Your task to perform on an android device: Go to accessibility settings Image 0: 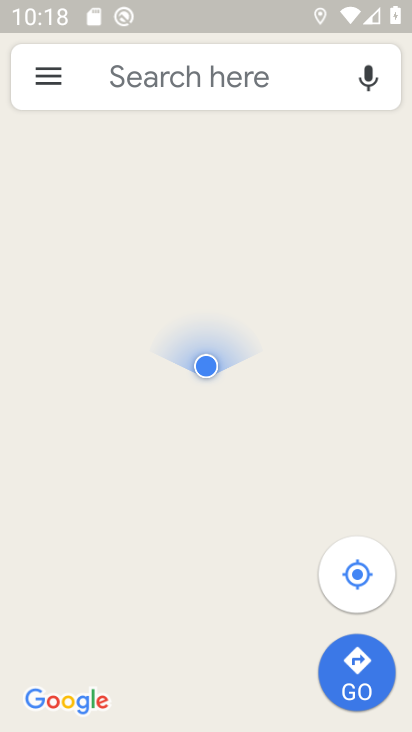
Step 0: press home button
Your task to perform on an android device: Go to accessibility settings Image 1: 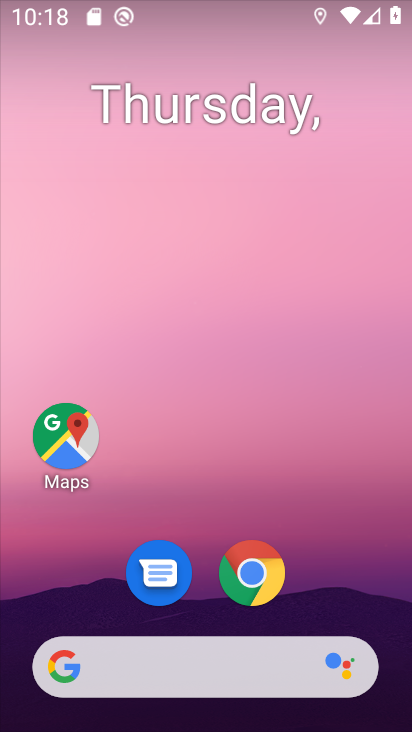
Step 1: drag from (224, 638) to (215, 6)
Your task to perform on an android device: Go to accessibility settings Image 2: 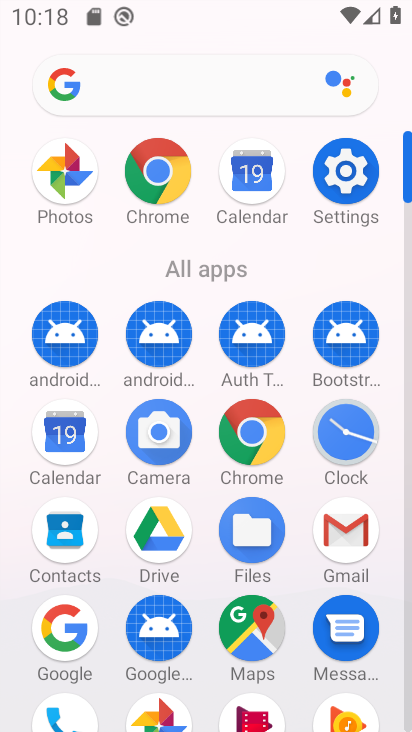
Step 2: click (323, 180)
Your task to perform on an android device: Go to accessibility settings Image 3: 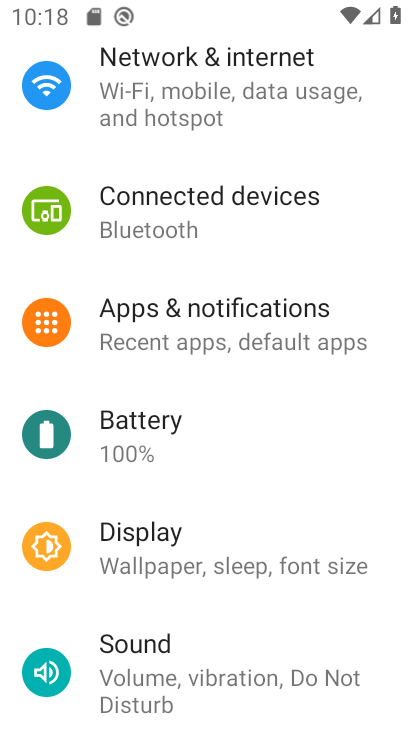
Step 3: drag from (224, 584) to (161, 119)
Your task to perform on an android device: Go to accessibility settings Image 4: 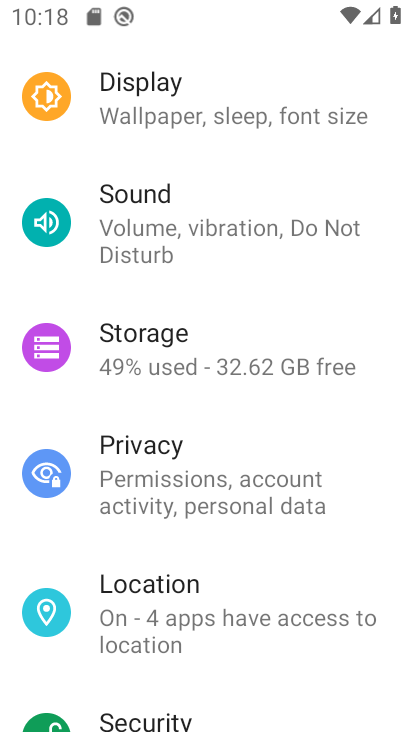
Step 4: drag from (189, 630) to (172, 123)
Your task to perform on an android device: Go to accessibility settings Image 5: 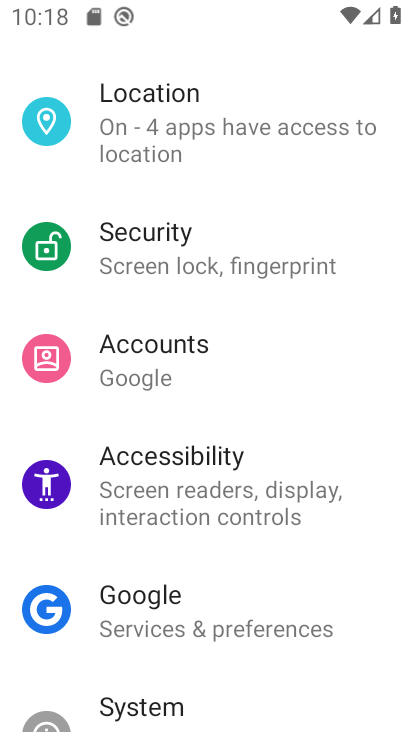
Step 5: click (175, 492)
Your task to perform on an android device: Go to accessibility settings Image 6: 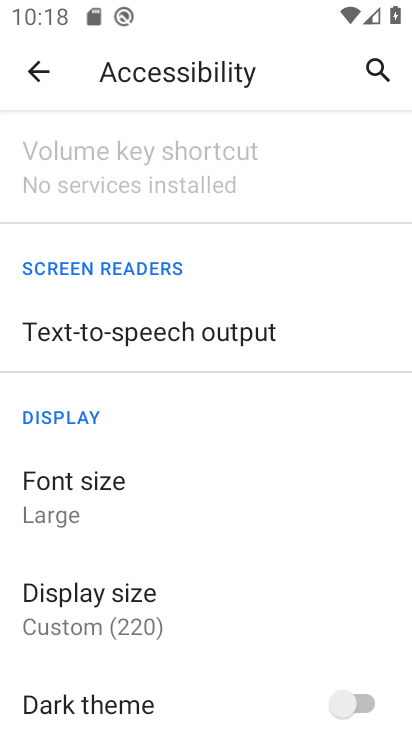
Step 6: task complete